Your task to perform on an android device: Open eBay Image 0: 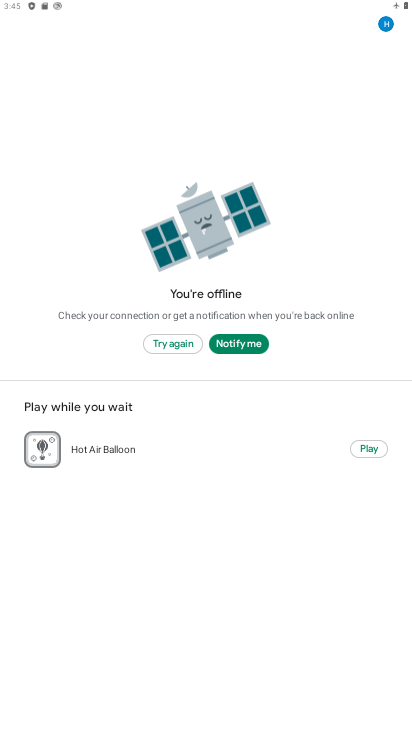
Step 0: press home button
Your task to perform on an android device: Open eBay Image 1: 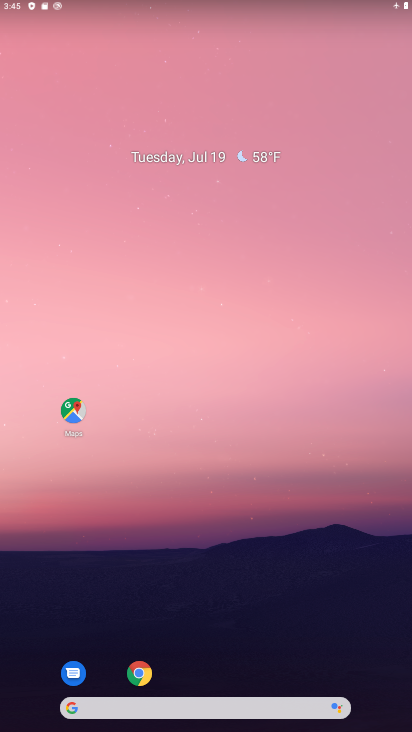
Step 1: drag from (370, 4) to (302, 602)
Your task to perform on an android device: Open eBay Image 2: 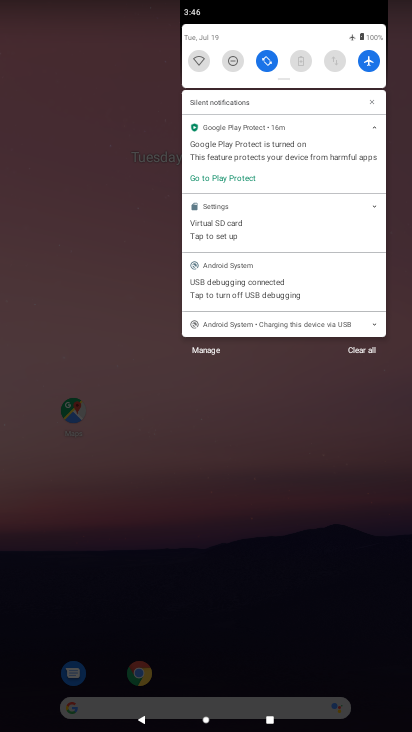
Step 2: click (372, 59)
Your task to perform on an android device: Open eBay Image 3: 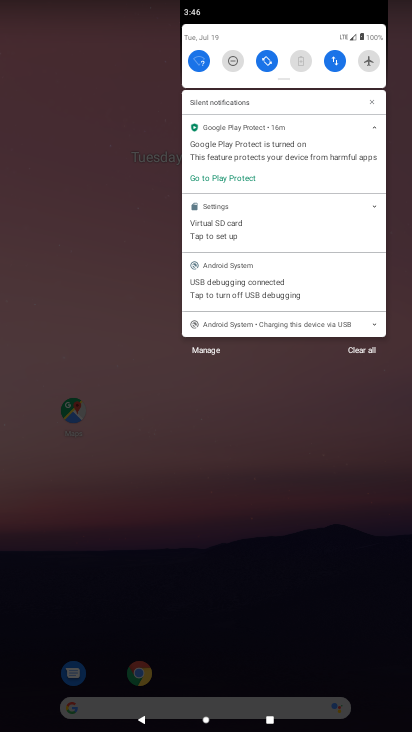
Step 3: click (263, 562)
Your task to perform on an android device: Open eBay Image 4: 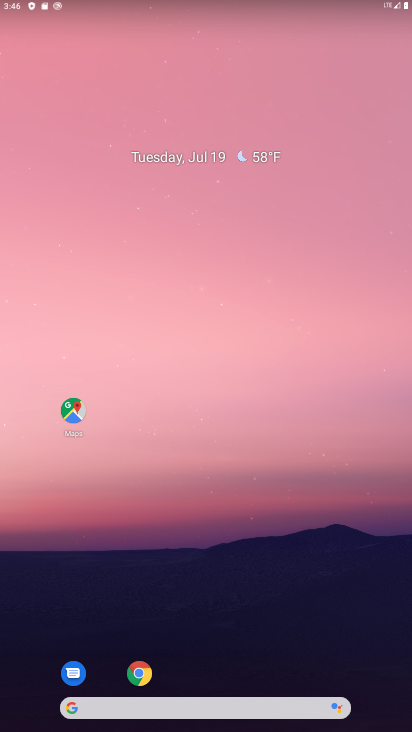
Step 4: click (263, 562)
Your task to perform on an android device: Open eBay Image 5: 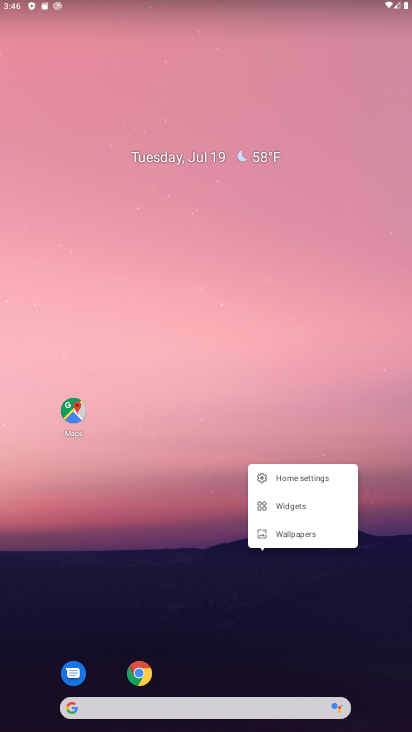
Step 5: click (134, 676)
Your task to perform on an android device: Open eBay Image 6: 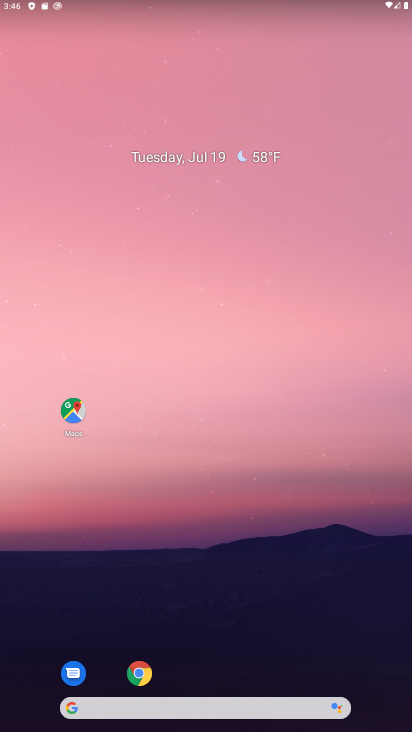
Step 6: click (141, 673)
Your task to perform on an android device: Open eBay Image 7: 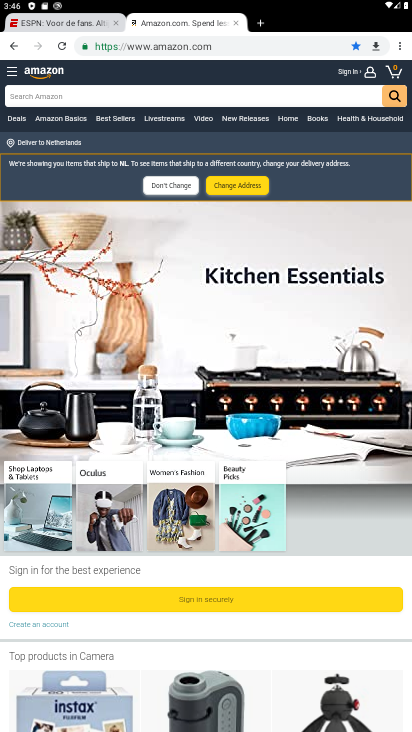
Step 7: click (222, 48)
Your task to perform on an android device: Open eBay Image 8: 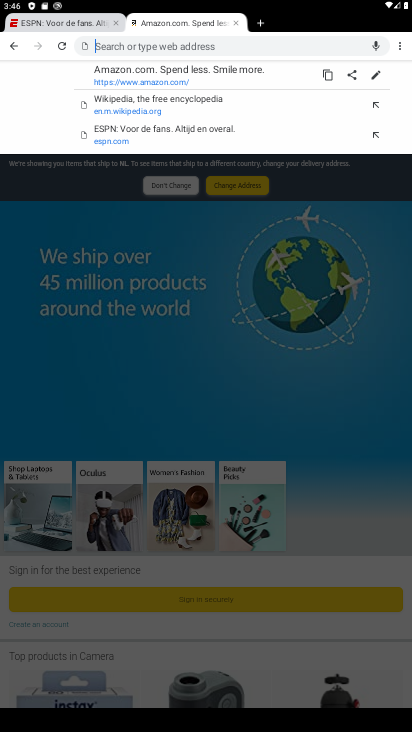
Step 8: type "ebay.com"
Your task to perform on an android device: Open eBay Image 9: 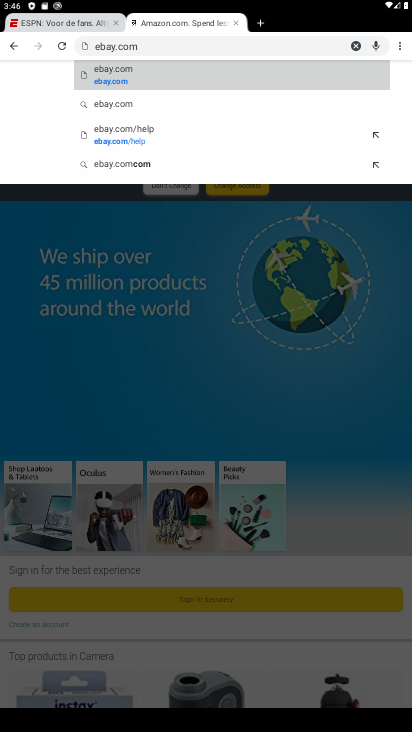
Step 9: click (112, 76)
Your task to perform on an android device: Open eBay Image 10: 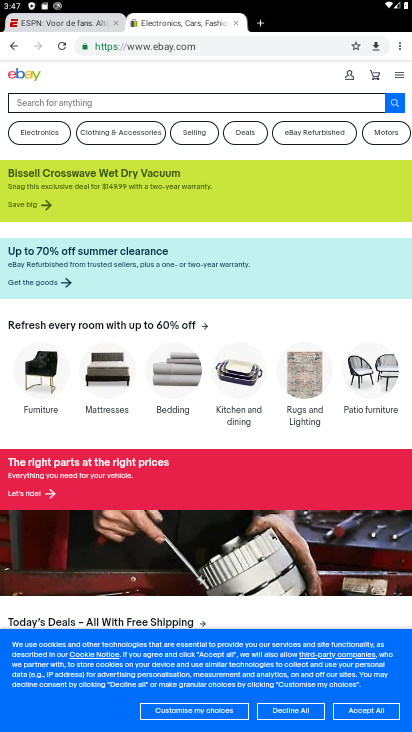
Step 10: task complete